Your task to perform on an android device: toggle priority inbox in the gmail app Image 0: 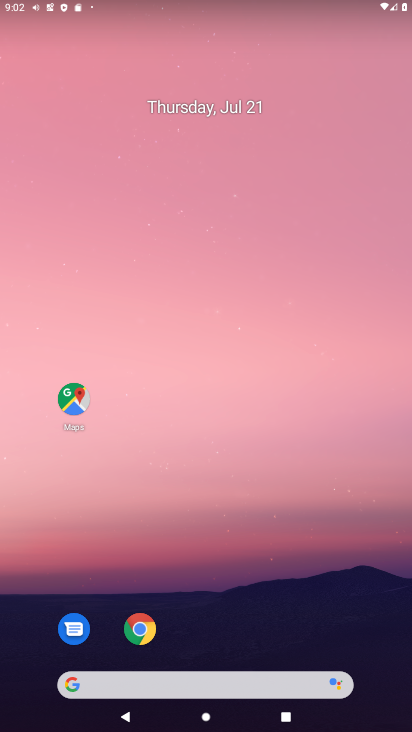
Step 0: drag from (178, 629) to (237, 75)
Your task to perform on an android device: toggle priority inbox in the gmail app Image 1: 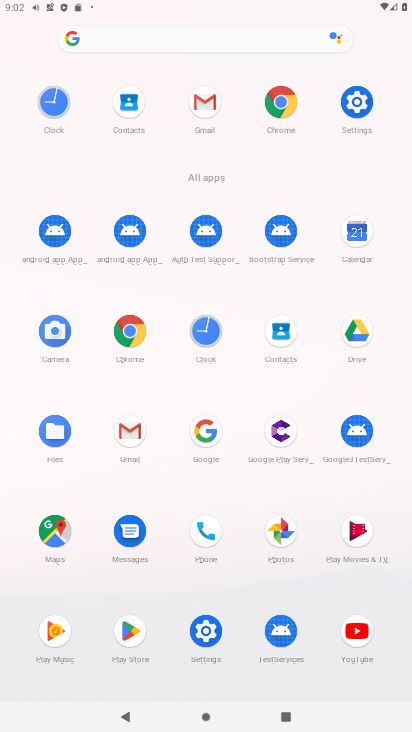
Step 1: click (202, 122)
Your task to perform on an android device: toggle priority inbox in the gmail app Image 2: 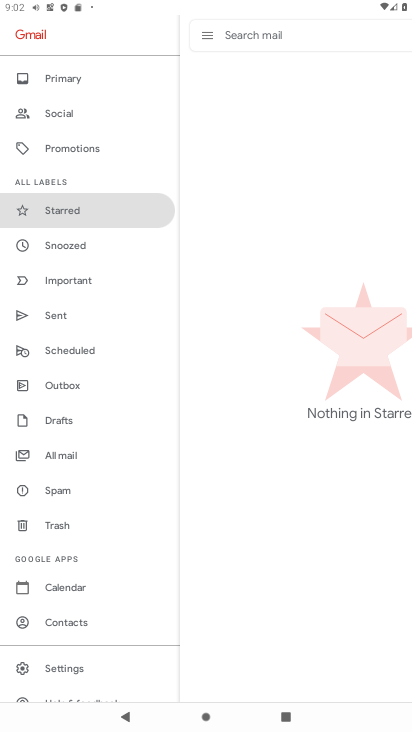
Step 2: click (69, 655)
Your task to perform on an android device: toggle priority inbox in the gmail app Image 3: 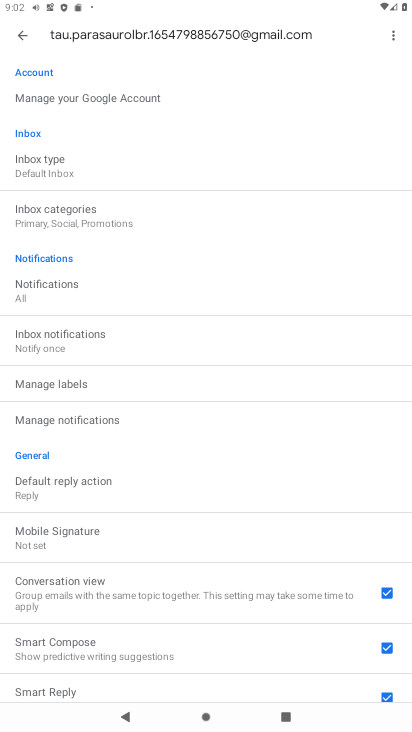
Step 3: click (112, 162)
Your task to perform on an android device: toggle priority inbox in the gmail app Image 4: 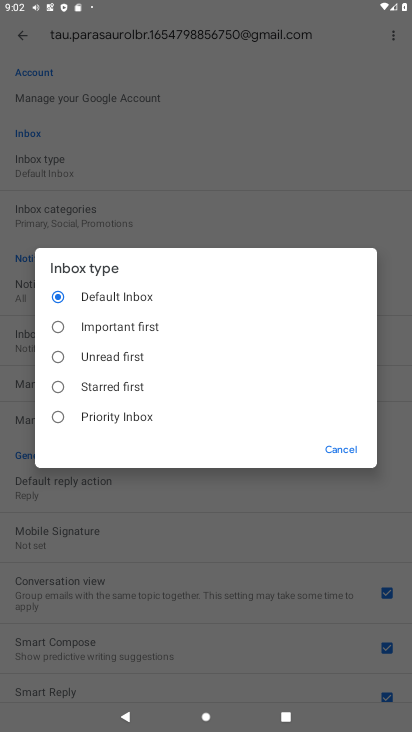
Step 4: click (98, 432)
Your task to perform on an android device: toggle priority inbox in the gmail app Image 5: 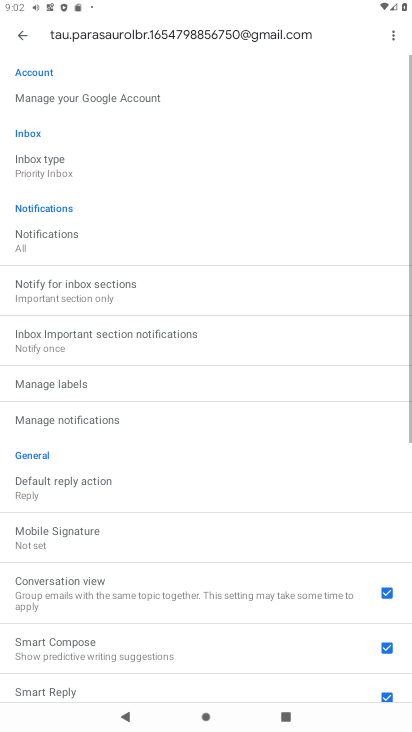
Step 5: task complete